Your task to perform on an android device: Open wifi settings Image 0: 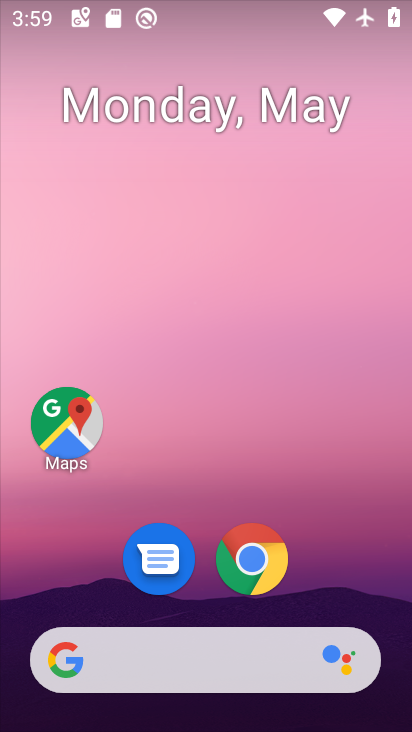
Step 0: drag from (315, 610) to (267, 158)
Your task to perform on an android device: Open wifi settings Image 1: 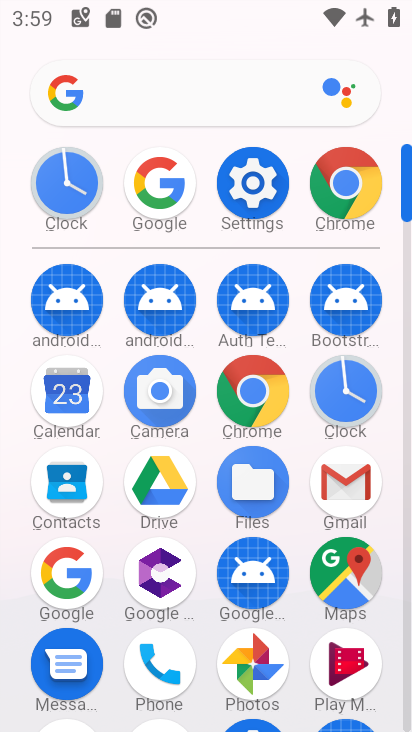
Step 1: click (252, 186)
Your task to perform on an android device: Open wifi settings Image 2: 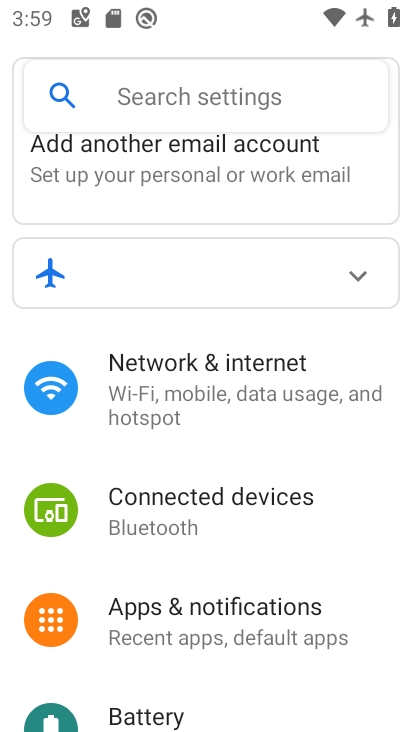
Step 2: click (193, 403)
Your task to perform on an android device: Open wifi settings Image 3: 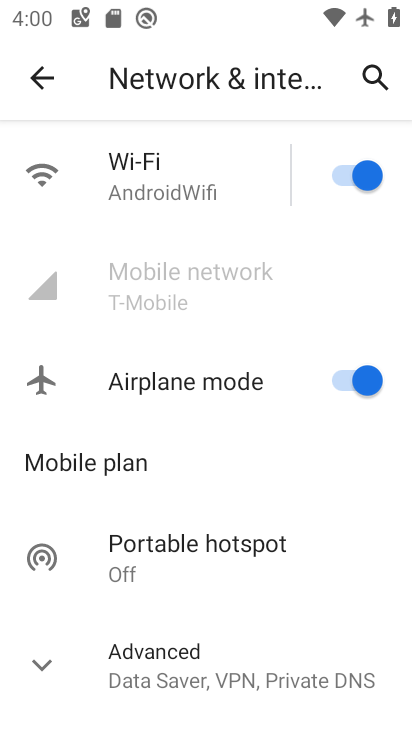
Step 3: click (152, 184)
Your task to perform on an android device: Open wifi settings Image 4: 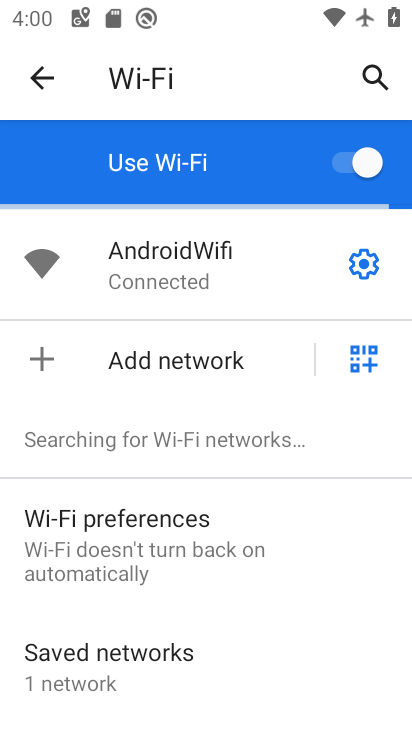
Step 4: task complete